Your task to perform on an android device: Open Yahoo.com Image 0: 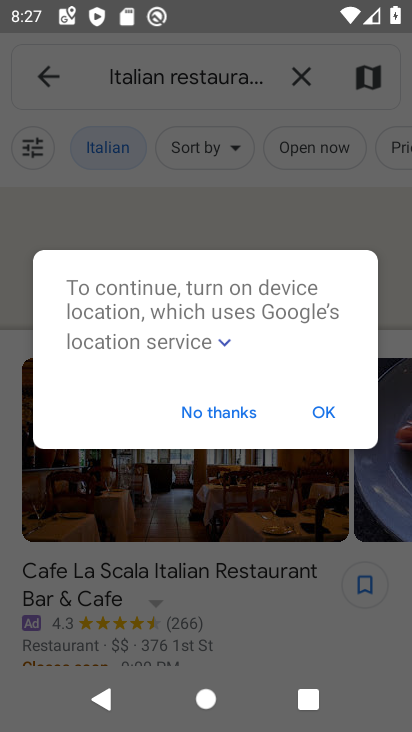
Step 0: press home button
Your task to perform on an android device: Open Yahoo.com Image 1: 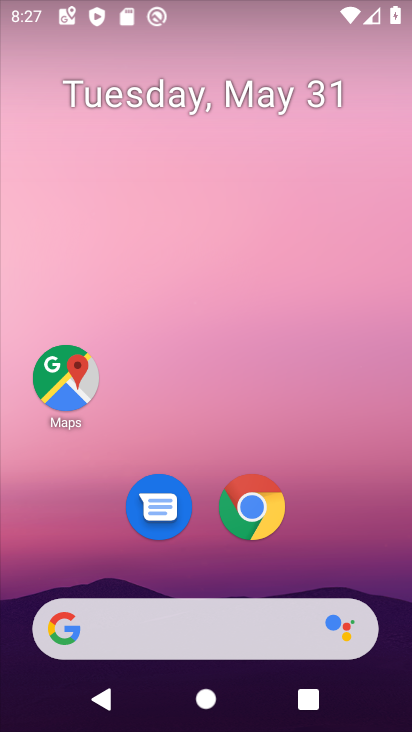
Step 1: click (255, 506)
Your task to perform on an android device: Open Yahoo.com Image 2: 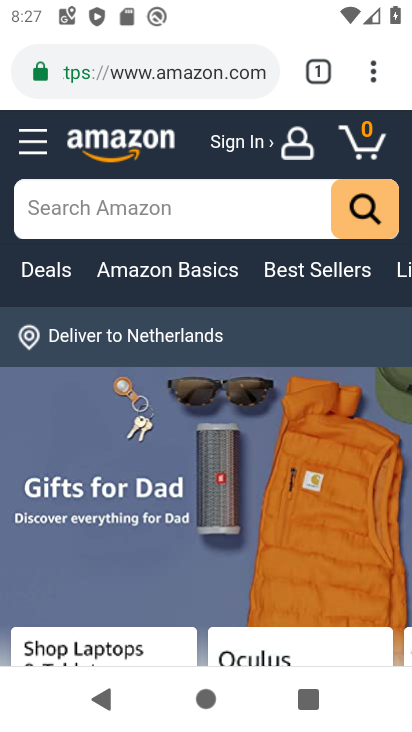
Step 2: click (157, 67)
Your task to perform on an android device: Open Yahoo.com Image 3: 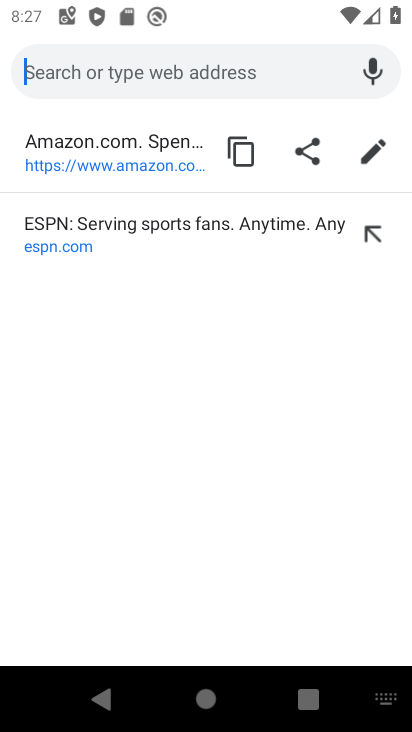
Step 3: type "yahoo.com"
Your task to perform on an android device: Open Yahoo.com Image 4: 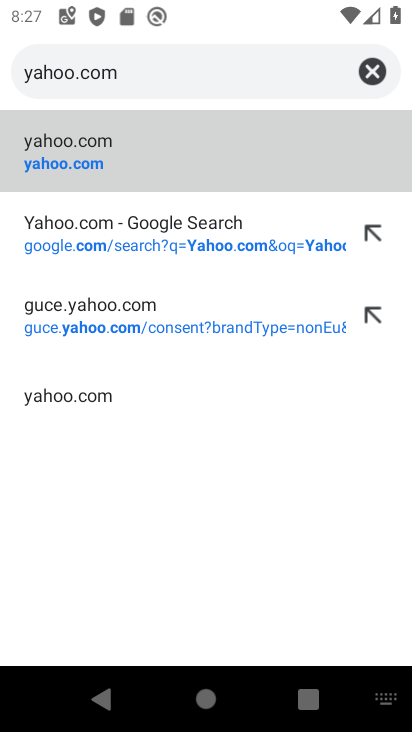
Step 4: click (91, 171)
Your task to perform on an android device: Open Yahoo.com Image 5: 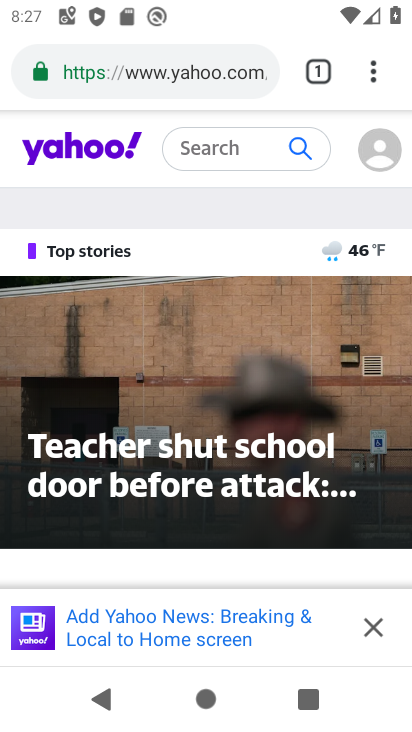
Step 5: task complete